Your task to perform on an android device: What's the weather like inToronto? Image 0: 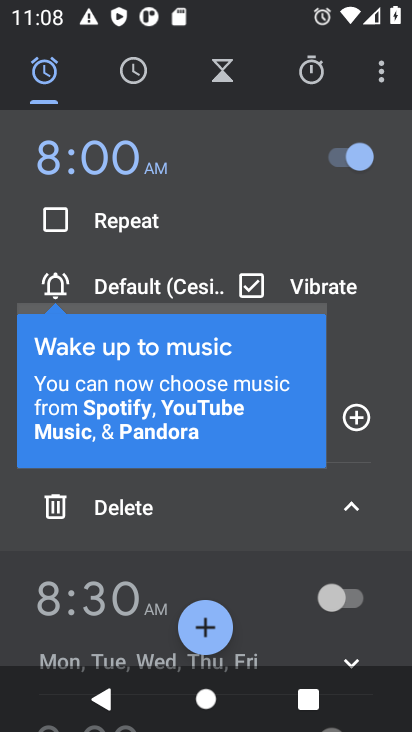
Step 0: press home button
Your task to perform on an android device: What's the weather like inToronto? Image 1: 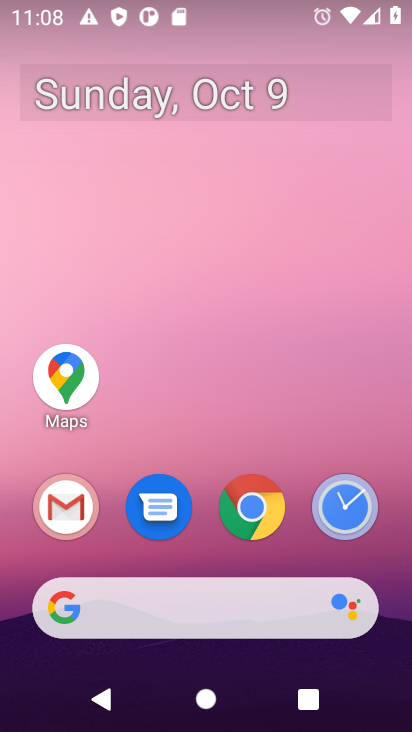
Step 1: click (188, 589)
Your task to perform on an android device: What's the weather like inToronto? Image 2: 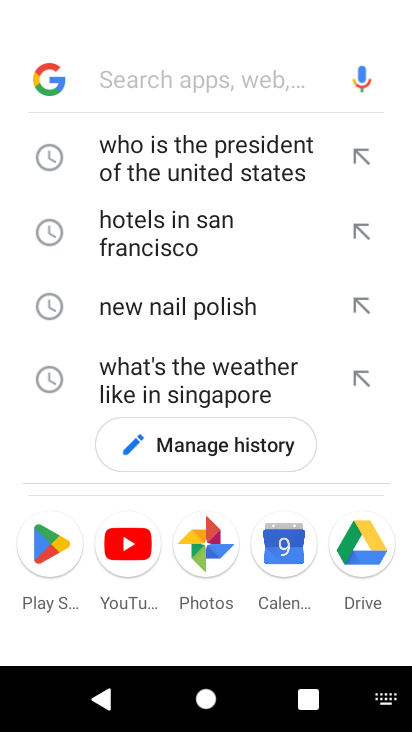
Step 2: type "What's the weather like inToronto"
Your task to perform on an android device: What's the weather like inToronto? Image 3: 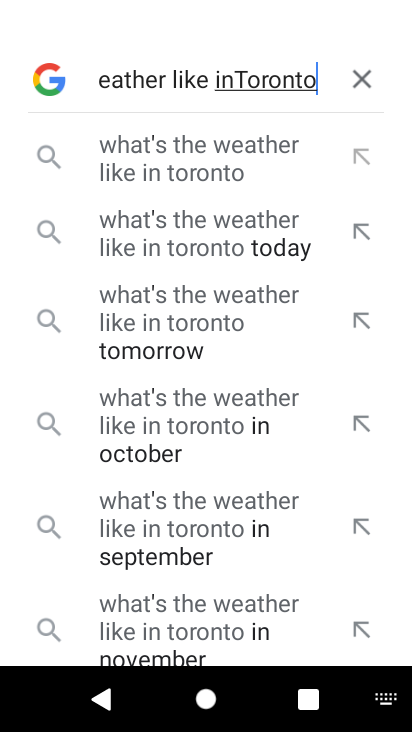
Step 3: press enter
Your task to perform on an android device: What's the weather like inToronto? Image 4: 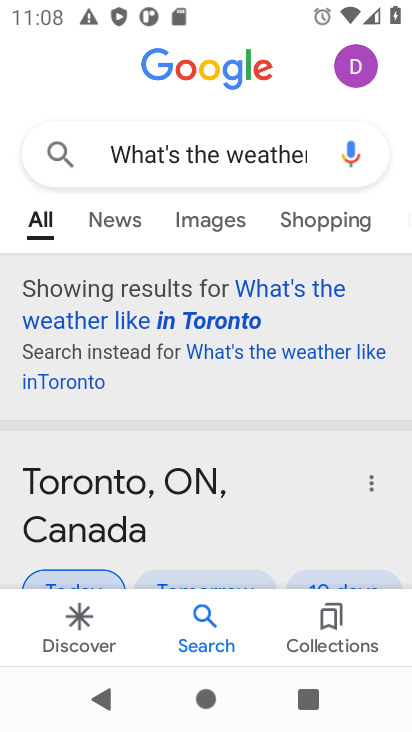
Step 4: task complete